Your task to perform on an android device: Go to Yahoo.com Image 0: 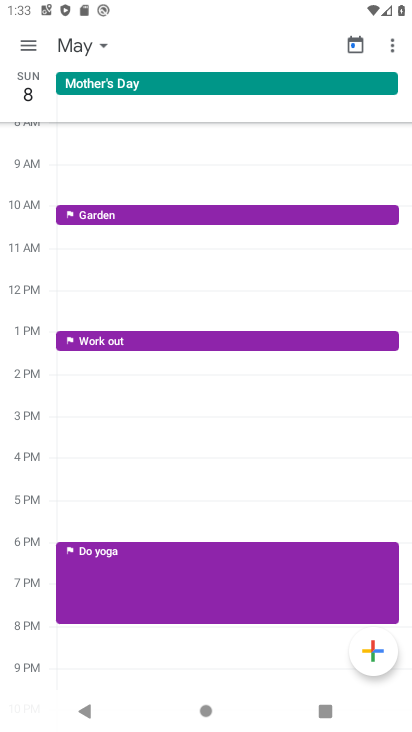
Step 0: drag from (234, 562) to (236, 289)
Your task to perform on an android device: Go to Yahoo.com Image 1: 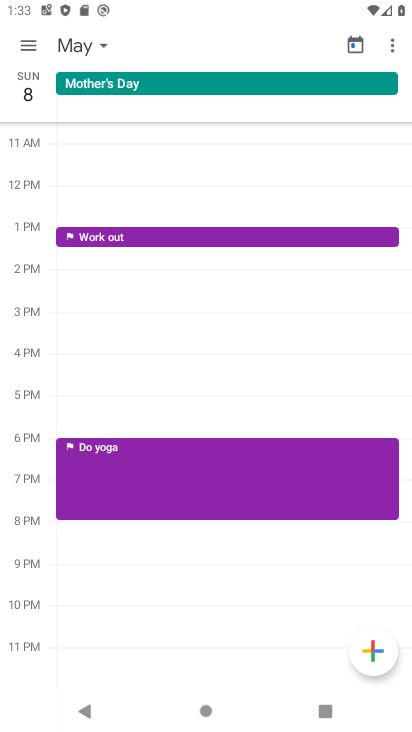
Step 1: press home button
Your task to perform on an android device: Go to Yahoo.com Image 2: 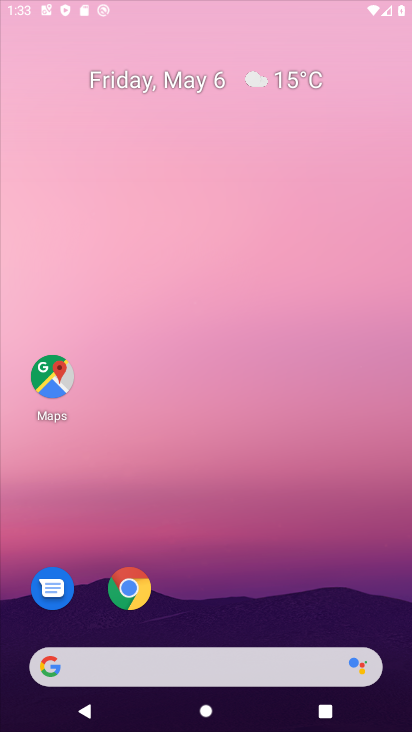
Step 2: drag from (215, 614) to (206, 136)
Your task to perform on an android device: Go to Yahoo.com Image 3: 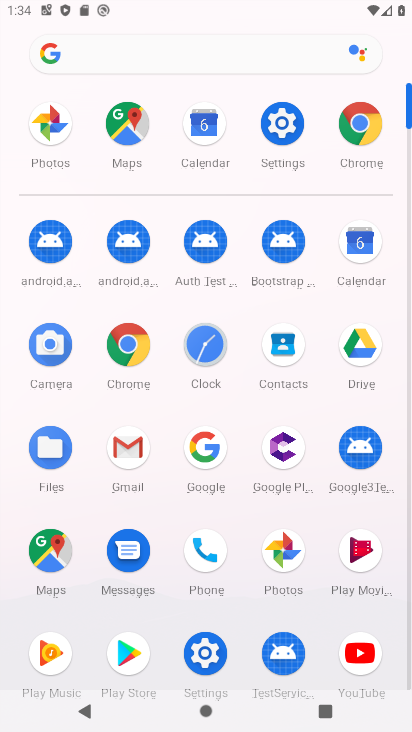
Step 3: click (203, 57)
Your task to perform on an android device: Go to Yahoo.com Image 4: 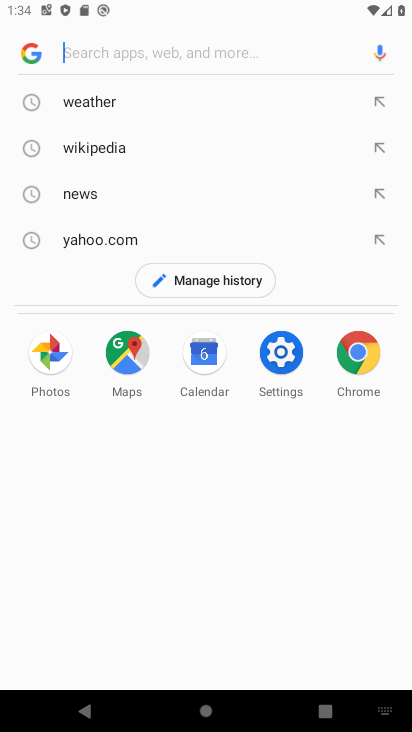
Step 4: click (113, 232)
Your task to perform on an android device: Go to Yahoo.com Image 5: 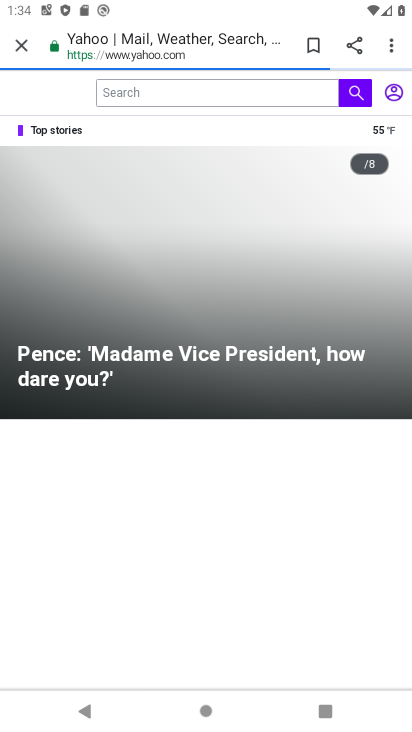
Step 5: task complete